Your task to perform on an android device: Go to Wikipedia Image 0: 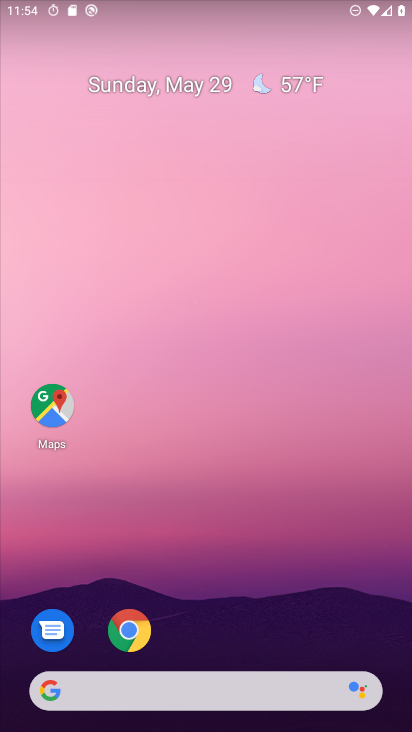
Step 0: press home button
Your task to perform on an android device: Go to Wikipedia Image 1: 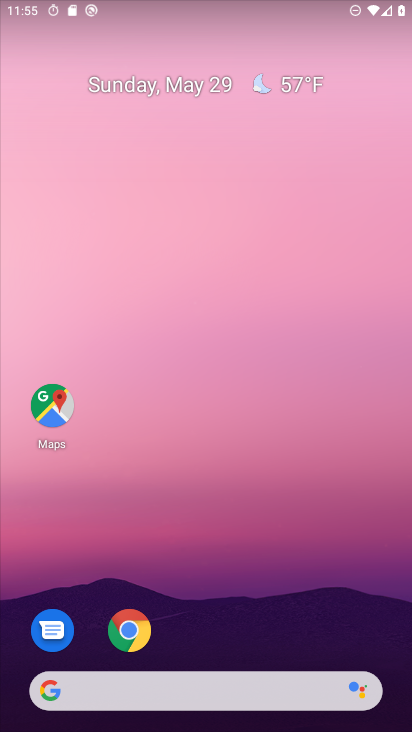
Step 1: drag from (223, 714) to (184, 147)
Your task to perform on an android device: Go to Wikipedia Image 2: 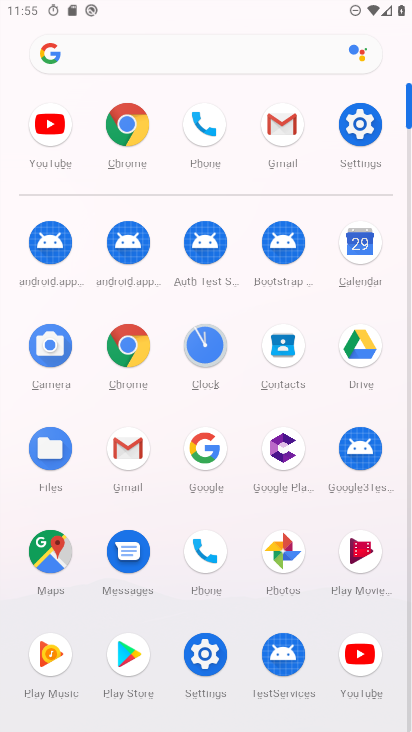
Step 2: click (359, 132)
Your task to perform on an android device: Go to Wikipedia Image 3: 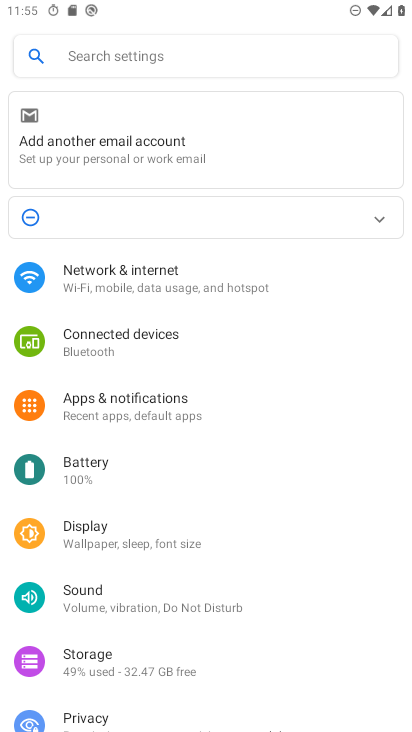
Step 3: press home button
Your task to perform on an android device: Go to Wikipedia Image 4: 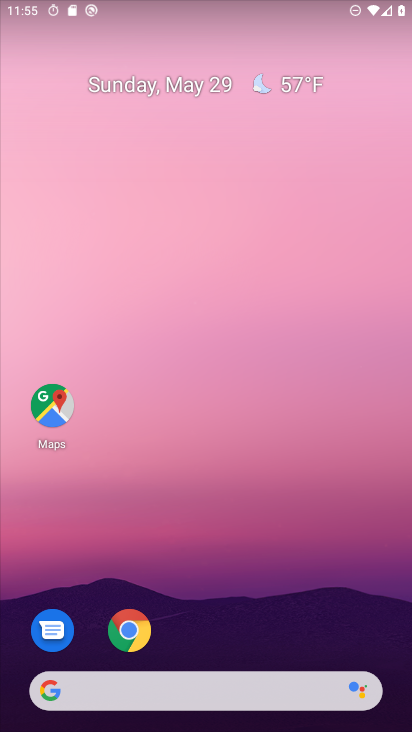
Step 4: drag from (239, 680) to (155, 9)
Your task to perform on an android device: Go to Wikipedia Image 5: 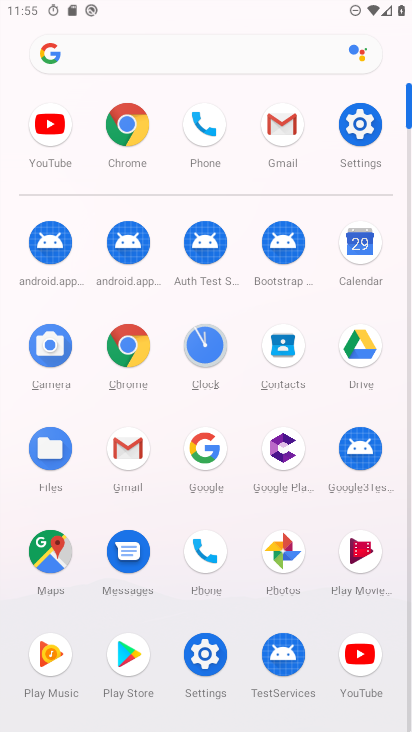
Step 5: click (112, 127)
Your task to perform on an android device: Go to Wikipedia Image 6: 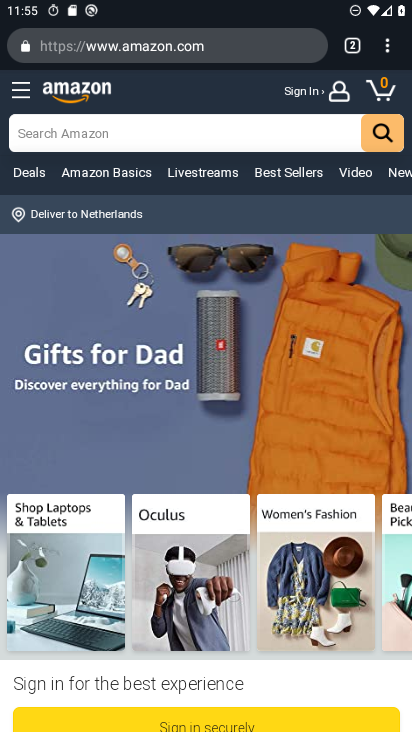
Step 6: click (381, 50)
Your task to perform on an android device: Go to Wikipedia Image 7: 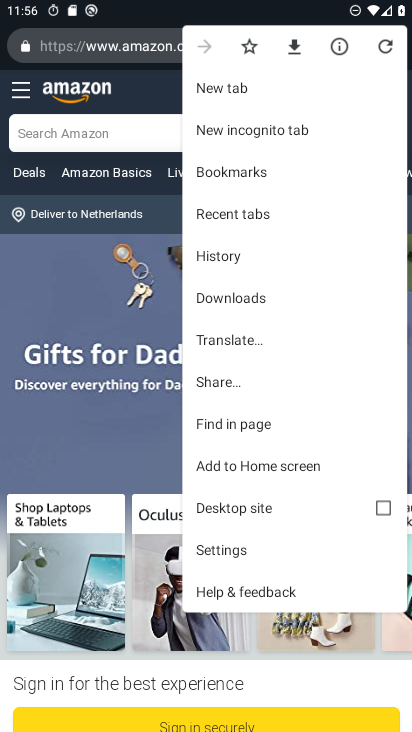
Step 7: click (223, 91)
Your task to perform on an android device: Go to Wikipedia Image 8: 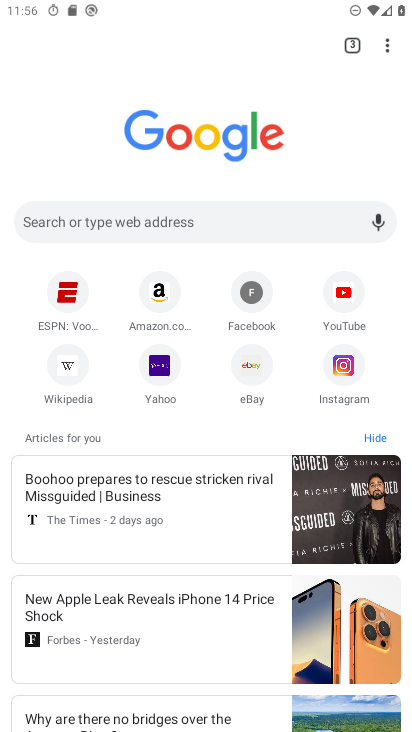
Step 8: click (67, 373)
Your task to perform on an android device: Go to Wikipedia Image 9: 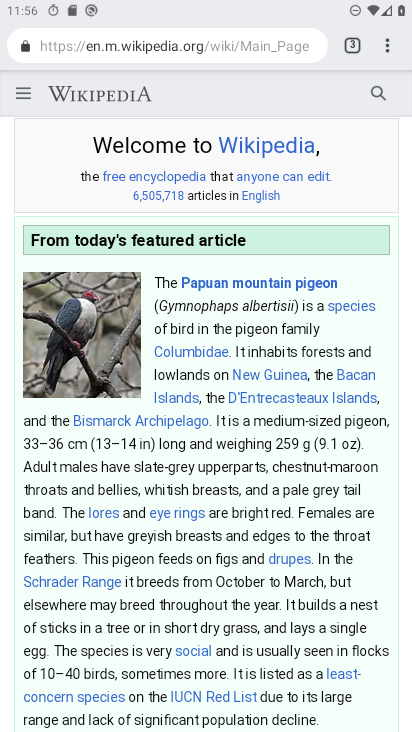
Step 9: task complete